Your task to perform on an android device: Open calendar and show me the fourth week of next month Image 0: 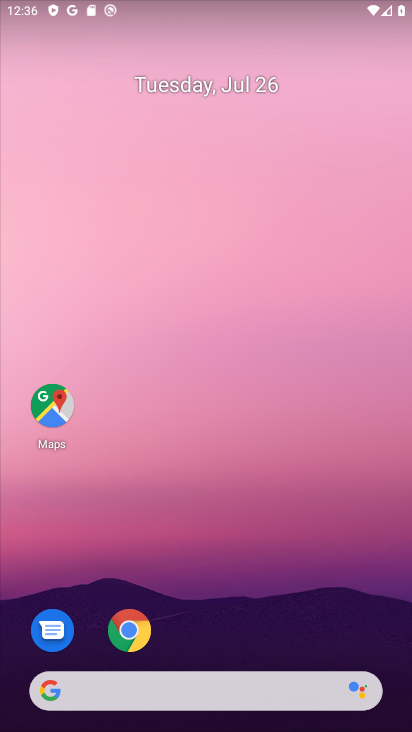
Step 0: drag from (165, 612) to (0, 88)
Your task to perform on an android device: Open calendar and show me the fourth week of next month Image 1: 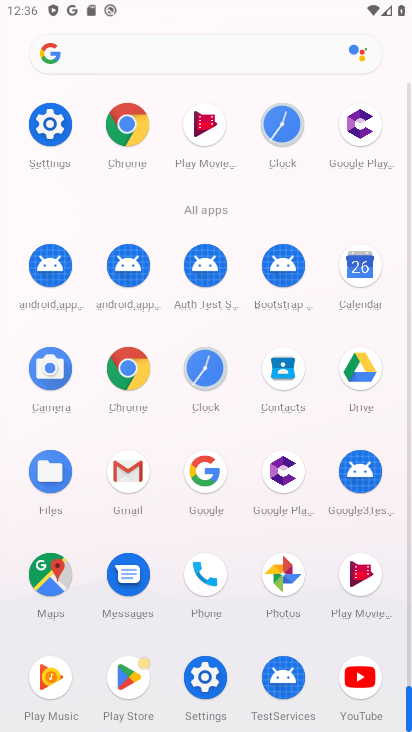
Step 1: click (363, 274)
Your task to perform on an android device: Open calendar and show me the fourth week of next month Image 2: 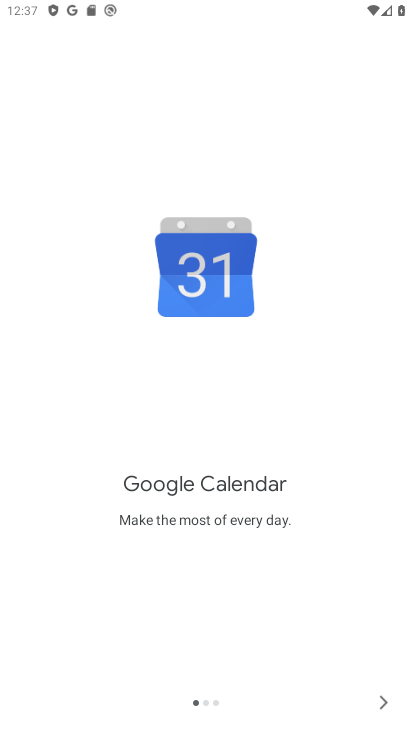
Step 2: click (393, 704)
Your task to perform on an android device: Open calendar and show me the fourth week of next month Image 3: 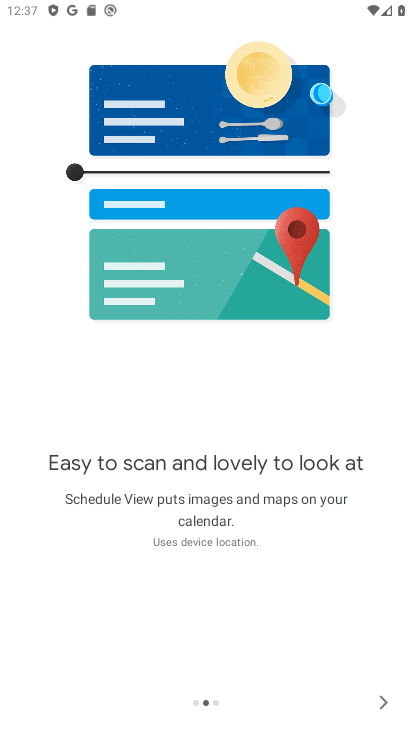
Step 3: click (384, 699)
Your task to perform on an android device: Open calendar and show me the fourth week of next month Image 4: 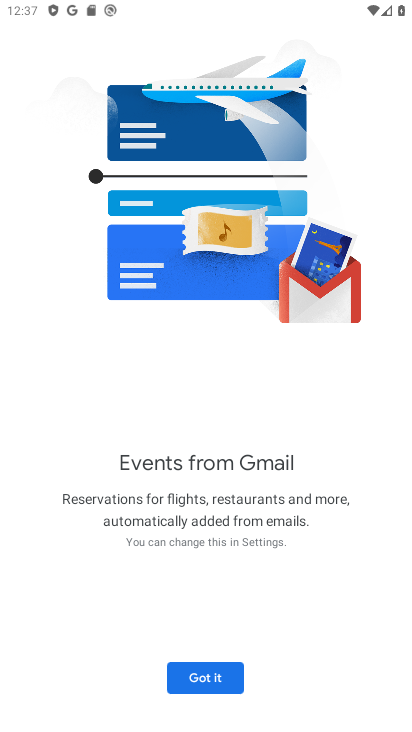
Step 4: click (199, 685)
Your task to perform on an android device: Open calendar and show me the fourth week of next month Image 5: 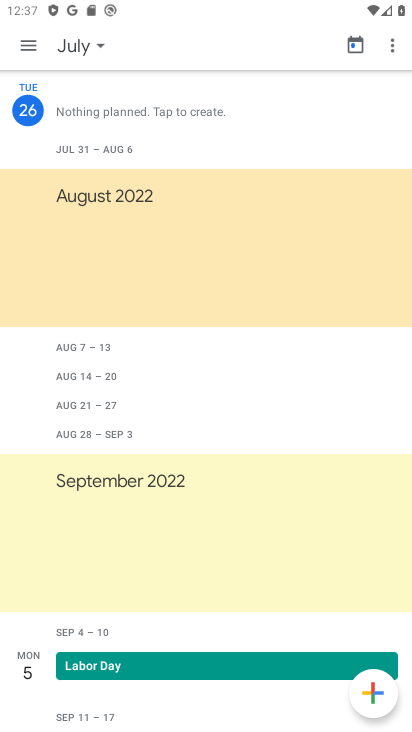
Step 5: click (77, 53)
Your task to perform on an android device: Open calendar and show me the fourth week of next month Image 6: 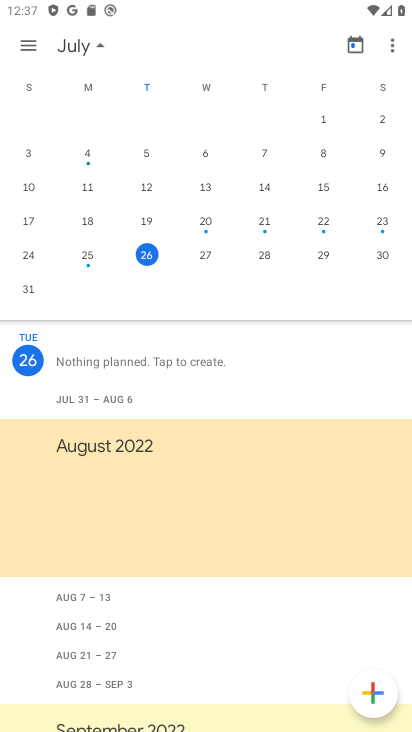
Step 6: drag from (344, 166) to (0, 193)
Your task to perform on an android device: Open calendar and show me the fourth week of next month Image 7: 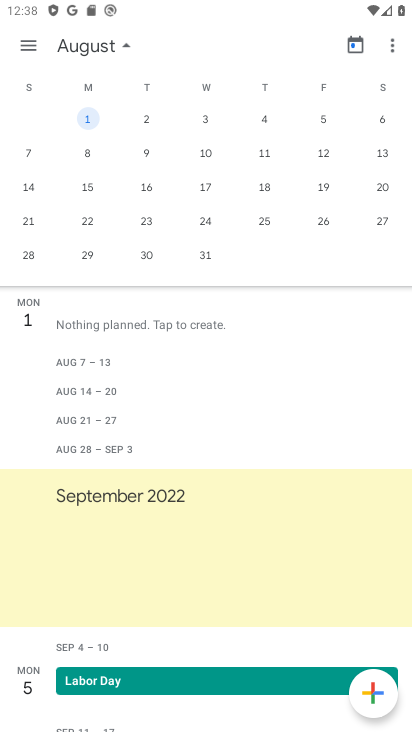
Step 7: click (21, 260)
Your task to perform on an android device: Open calendar and show me the fourth week of next month Image 8: 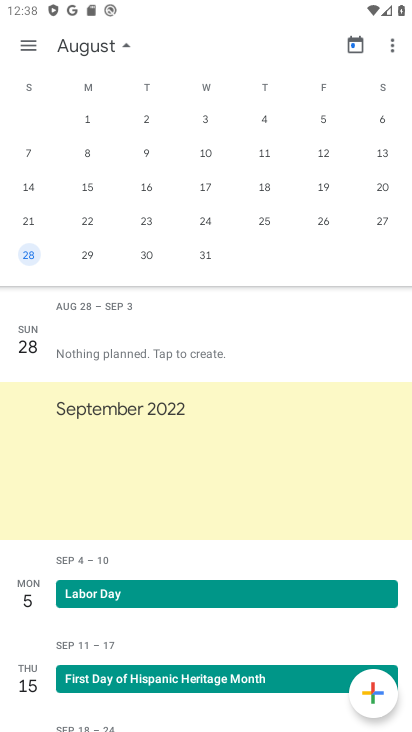
Step 8: task complete